Your task to perform on an android device: turn on airplane mode Image 0: 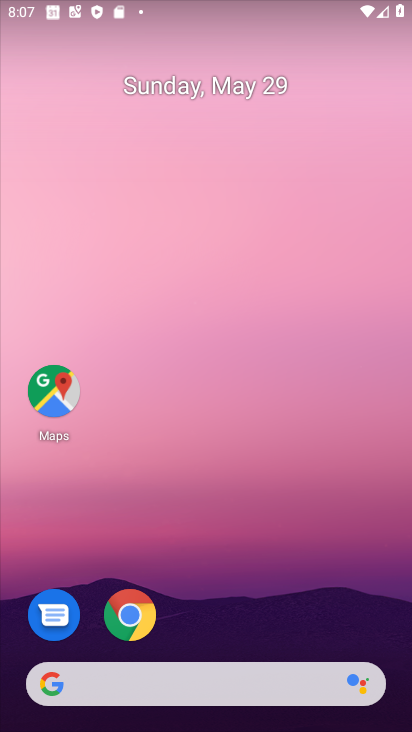
Step 0: drag from (283, 5) to (289, 425)
Your task to perform on an android device: turn on airplane mode Image 1: 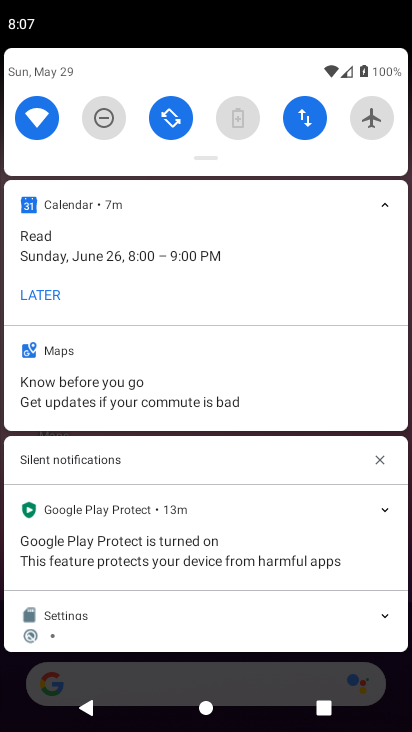
Step 1: click (376, 127)
Your task to perform on an android device: turn on airplane mode Image 2: 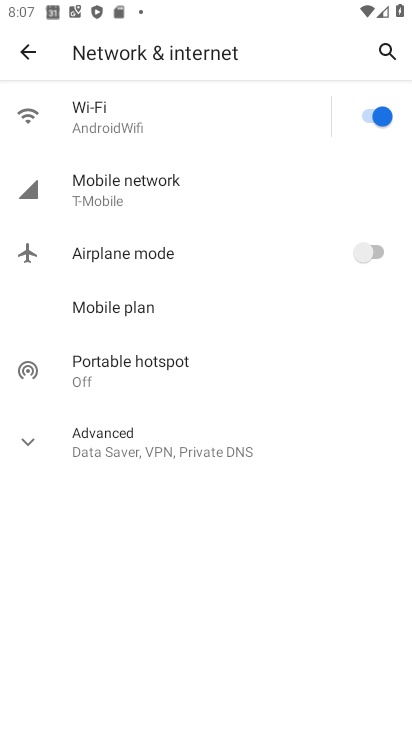
Step 2: click (375, 251)
Your task to perform on an android device: turn on airplane mode Image 3: 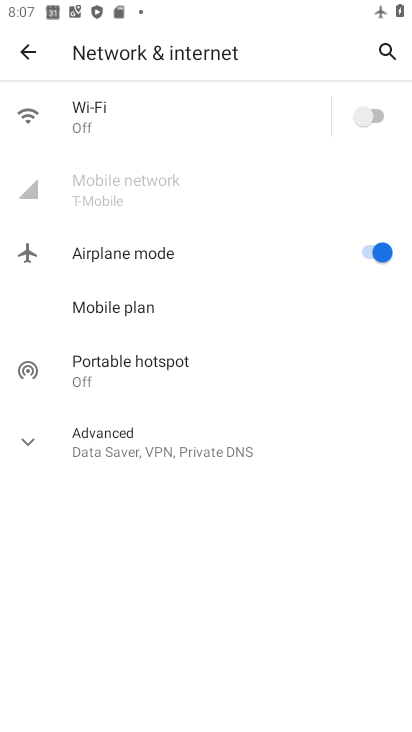
Step 3: task complete